Your task to perform on an android device: stop showing notifications on the lock screen Image 0: 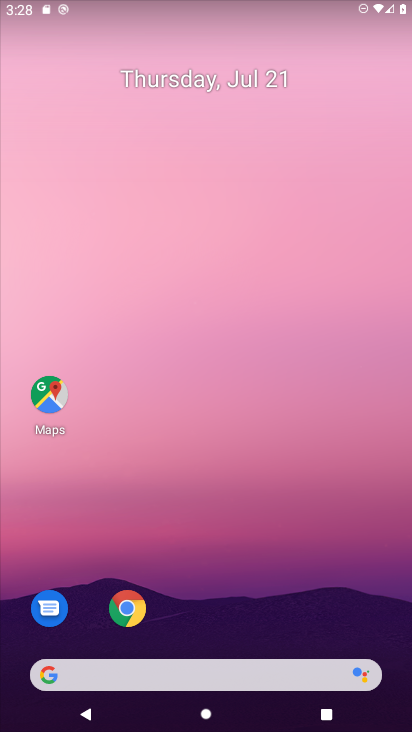
Step 0: drag from (209, 594) to (208, 6)
Your task to perform on an android device: stop showing notifications on the lock screen Image 1: 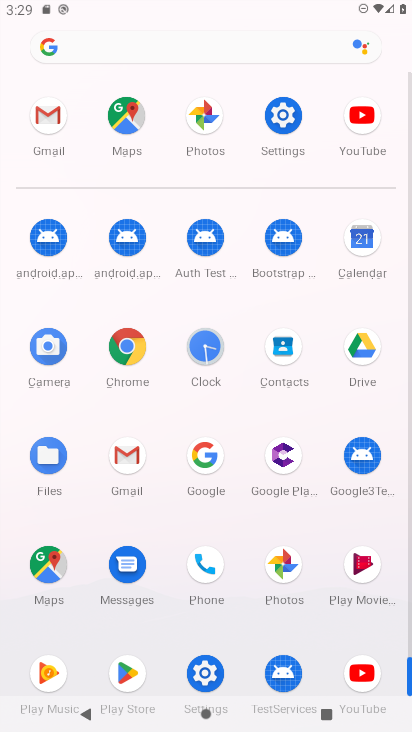
Step 1: click (276, 142)
Your task to perform on an android device: stop showing notifications on the lock screen Image 2: 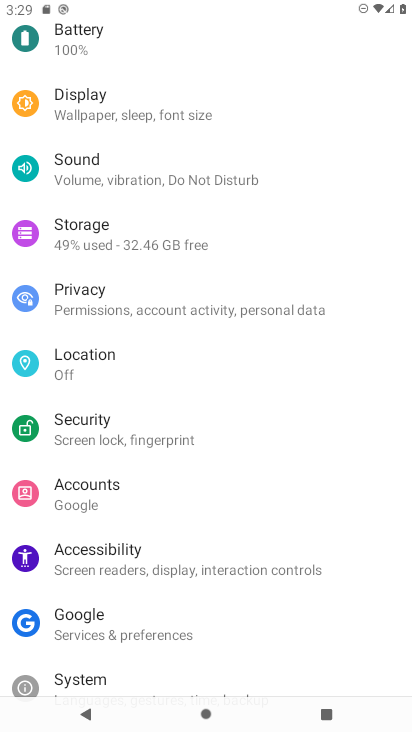
Step 2: drag from (163, 246) to (169, 595)
Your task to perform on an android device: stop showing notifications on the lock screen Image 3: 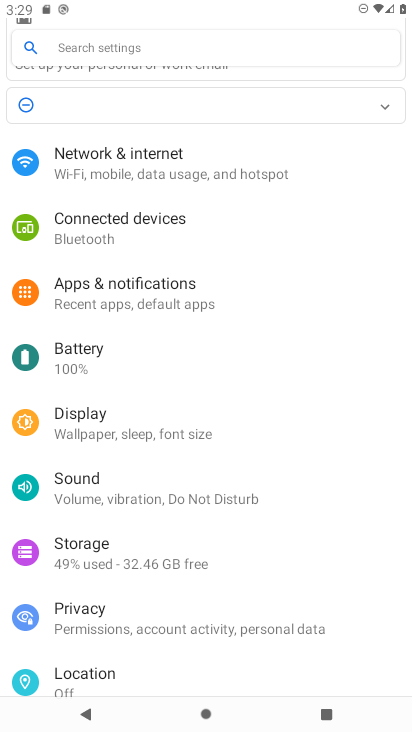
Step 3: click (131, 306)
Your task to perform on an android device: stop showing notifications on the lock screen Image 4: 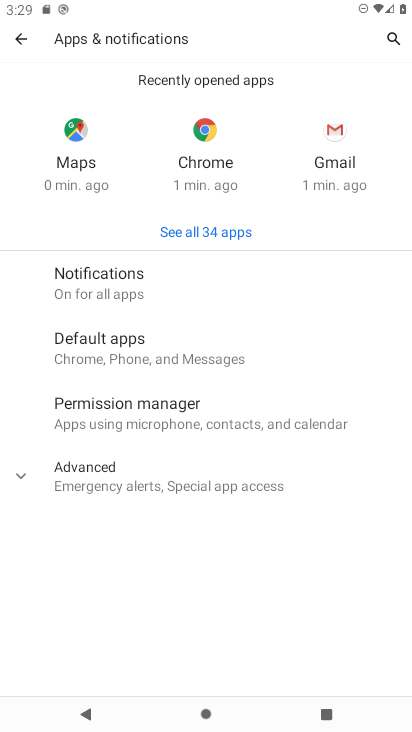
Step 4: click (109, 303)
Your task to perform on an android device: stop showing notifications on the lock screen Image 5: 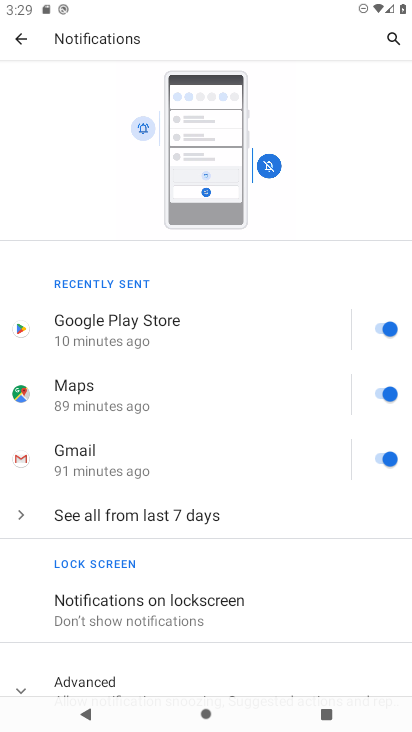
Step 5: click (150, 615)
Your task to perform on an android device: stop showing notifications on the lock screen Image 6: 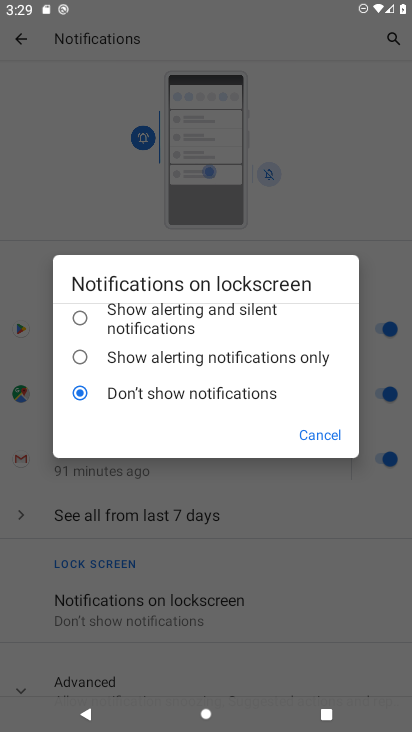
Step 6: task complete